Your task to perform on an android device: Go to calendar. Show me events next week Image 0: 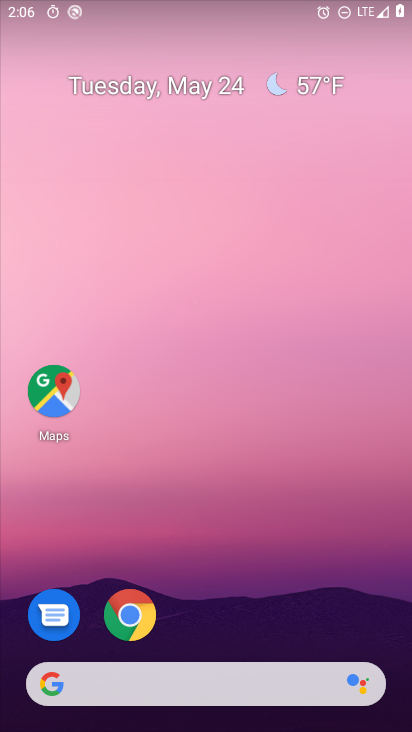
Step 0: drag from (199, 656) to (156, 217)
Your task to perform on an android device: Go to calendar. Show me events next week Image 1: 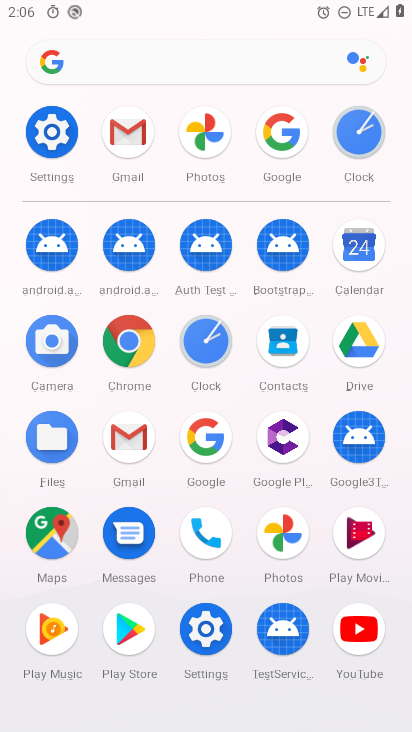
Step 1: click (369, 257)
Your task to perform on an android device: Go to calendar. Show me events next week Image 2: 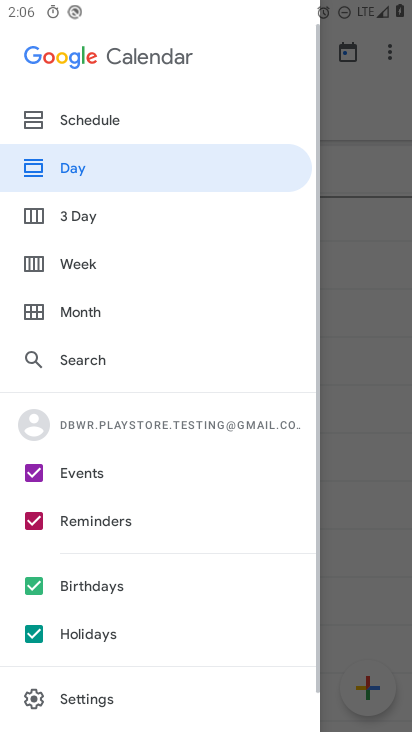
Step 2: click (372, 244)
Your task to perform on an android device: Go to calendar. Show me events next week Image 3: 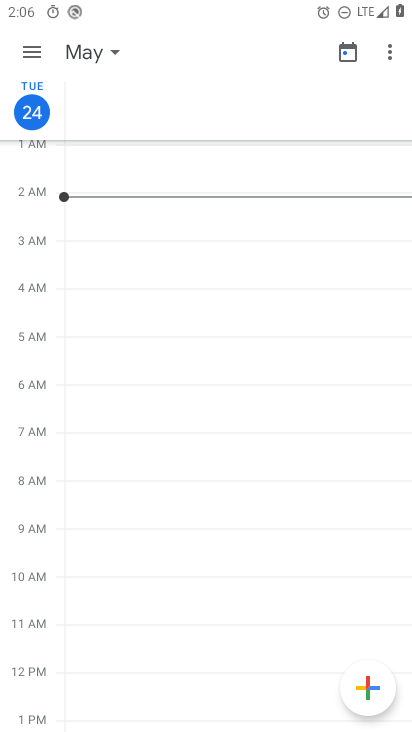
Step 3: click (85, 53)
Your task to perform on an android device: Go to calendar. Show me events next week Image 4: 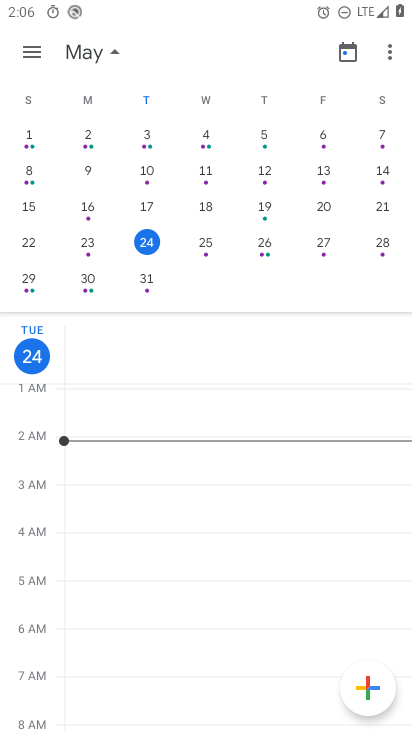
Step 4: click (87, 281)
Your task to perform on an android device: Go to calendar. Show me events next week Image 5: 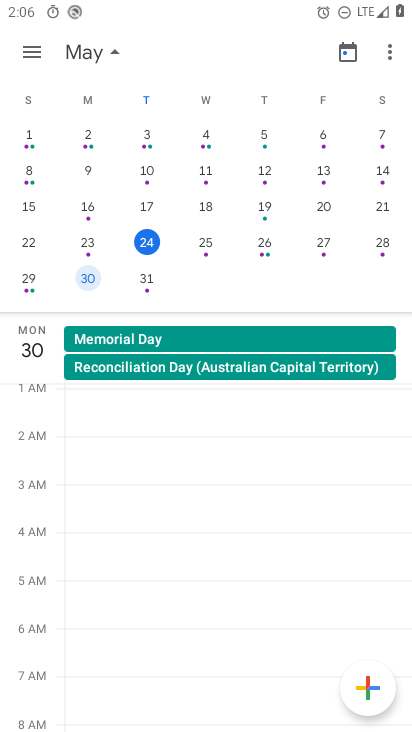
Step 5: click (113, 343)
Your task to perform on an android device: Go to calendar. Show me events next week Image 6: 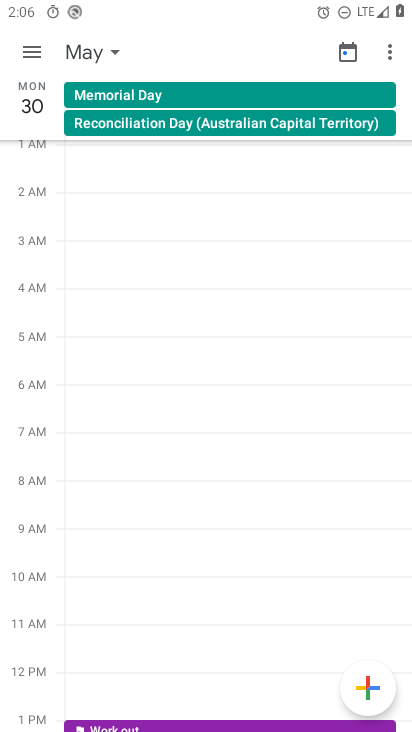
Step 6: task complete